Your task to perform on an android device: read, delete, or share a saved page in the chrome app Image 0: 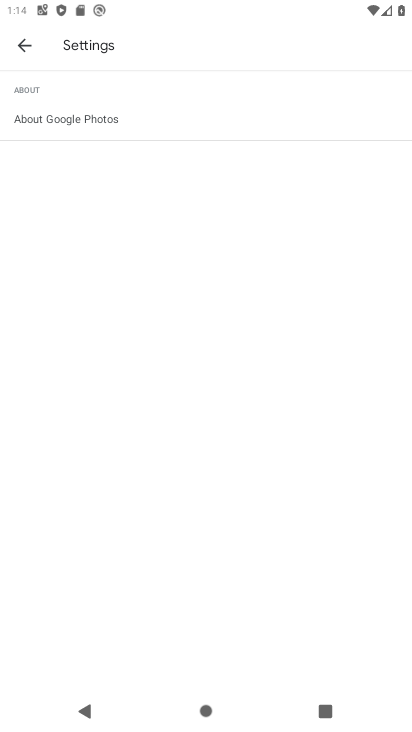
Step 0: press home button
Your task to perform on an android device: read, delete, or share a saved page in the chrome app Image 1: 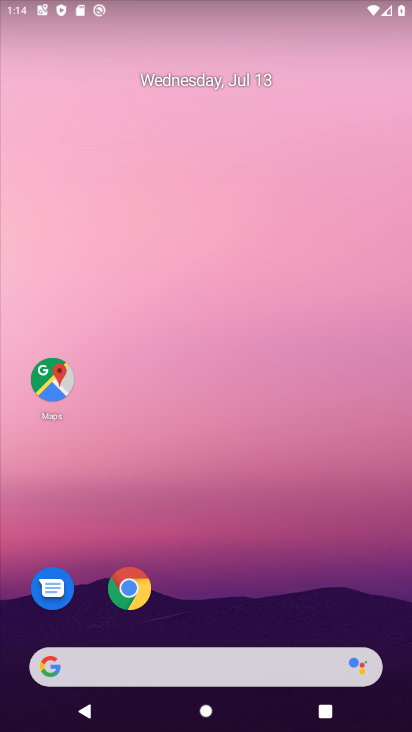
Step 1: click (119, 591)
Your task to perform on an android device: read, delete, or share a saved page in the chrome app Image 2: 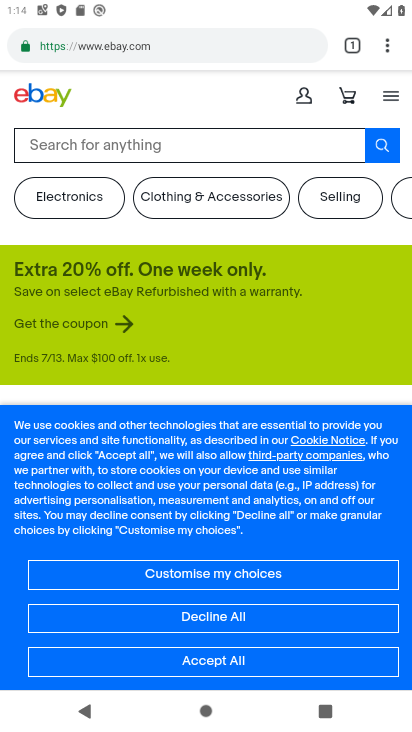
Step 2: click (384, 50)
Your task to perform on an android device: read, delete, or share a saved page in the chrome app Image 3: 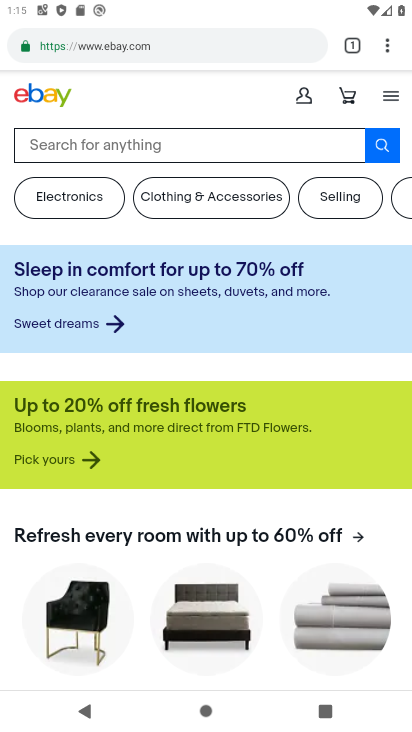
Step 3: click (384, 50)
Your task to perform on an android device: read, delete, or share a saved page in the chrome app Image 4: 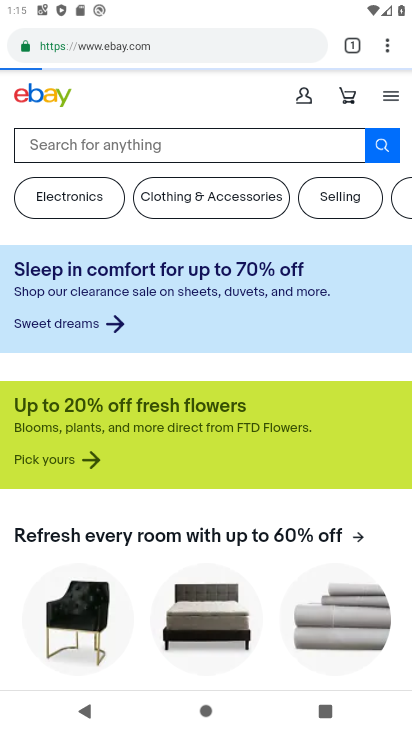
Step 4: click (384, 50)
Your task to perform on an android device: read, delete, or share a saved page in the chrome app Image 5: 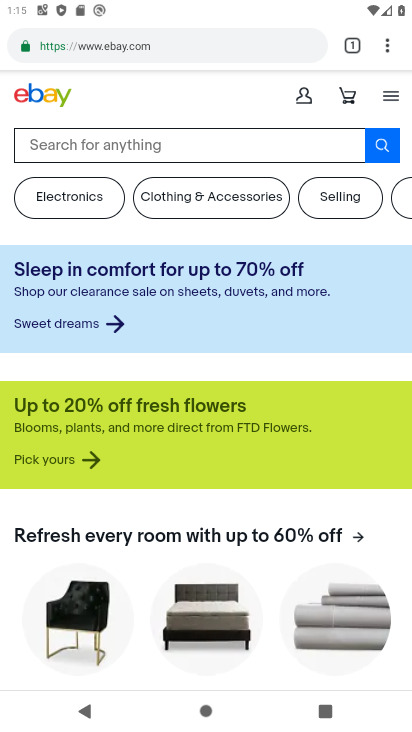
Step 5: click (384, 50)
Your task to perform on an android device: read, delete, or share a saved page in the chrome app Image 6: 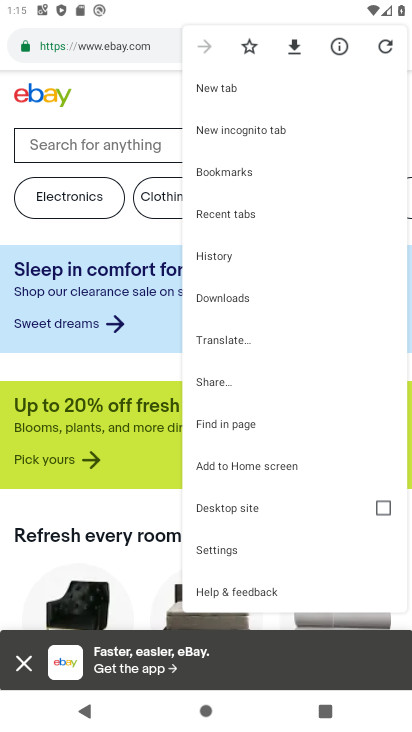
Step 6: click (227, 295)
Your task to perform on an android device: read, delete, or share a saved page in the chrome app Image 7: 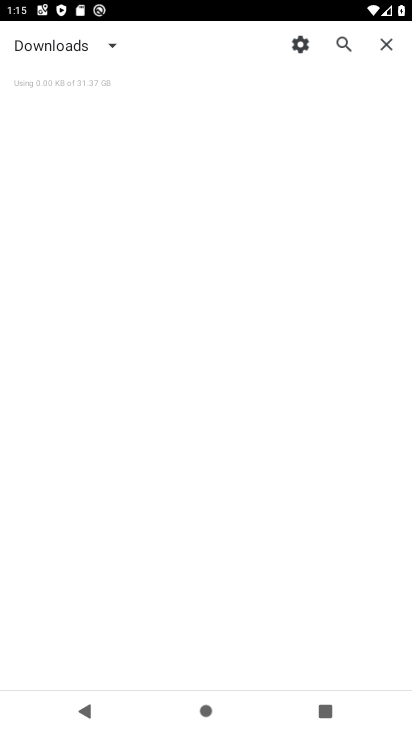
Step 7: click (113, 45)
Your task to perform on an android device: read, delete, or share a saved page in the chrome app Image 8: 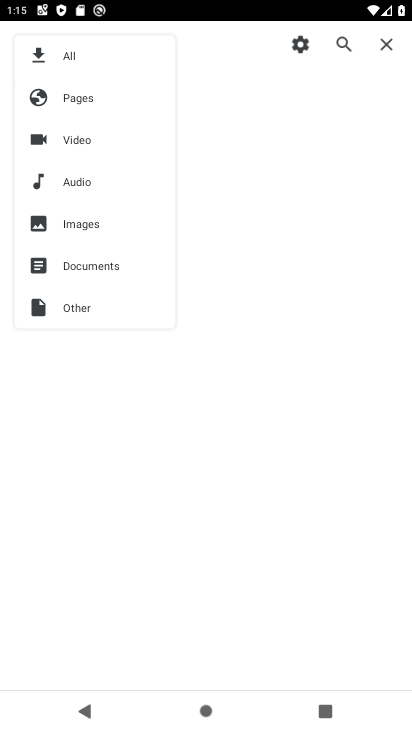
Step 8: click (79, 103)
Your task to perform on an android device: read, delete, or share a saved page in the chrome app Image 9: 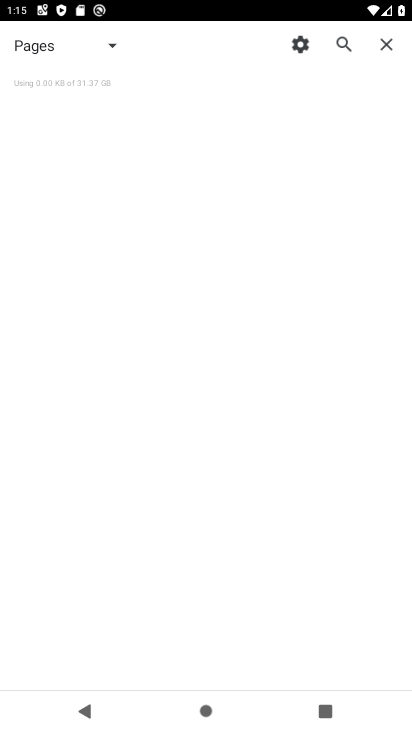
Step 9: click (111, 50)
Your task to perform on an android device: read, delete, or share a saved page in the chrome app Image 10: 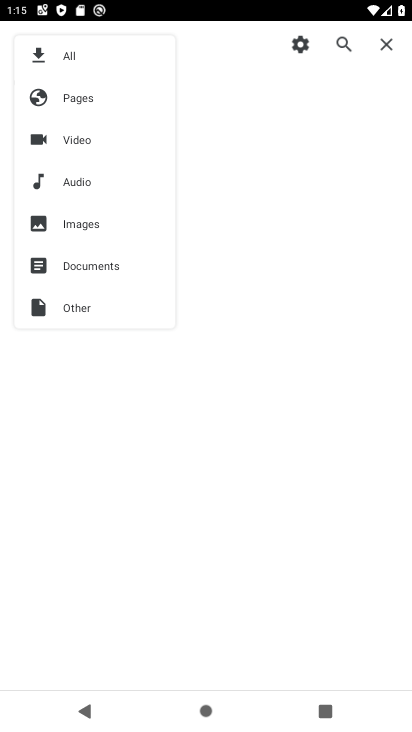
Step 10: click (116, 380)
Your task to perform on an android device: read, delete, or share a saved page in the chrome app Image 11: 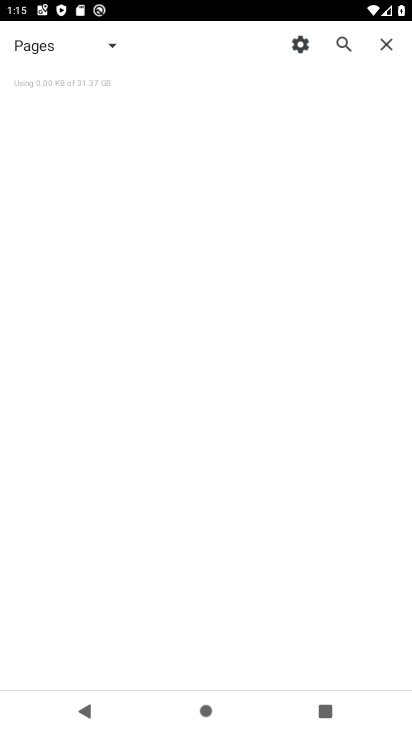
Step 11: task complete